Your task to perform on an android device: Show me the top rated dinnerware on Crate & Barrel Image 0: 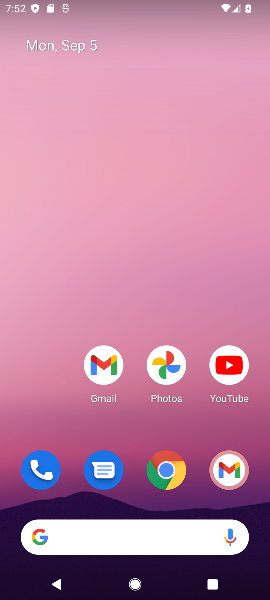
Step 0: click (157, 535)
Your task to perform on an android device: Show me the top rated dinnerware on Crate & Barrel Image 1: 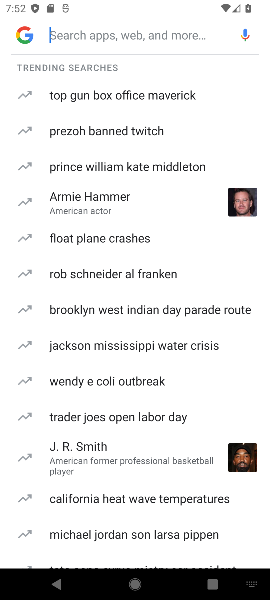
Step 1: type "crate & barrel"
Your task to perform on an android device: Show me the top rated dinnerware on Crate & Barrel Image 2: 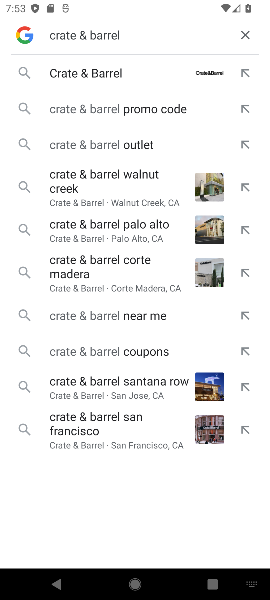
Step 2: click (109, 73)
Your task to perform on an android device: Show me the top rated dinnerware on Crate & Barrel Image 3: 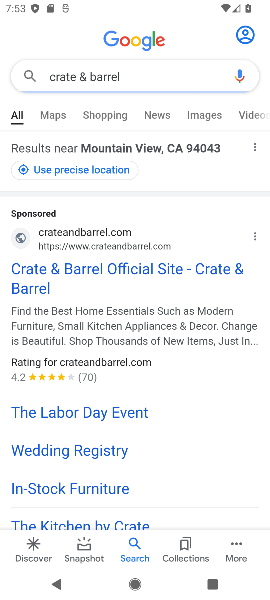
Step 3: click (60, 270)
Your task to perform on an android device: Show me the top rated dinnerware on Crate & Barrel Image 4: 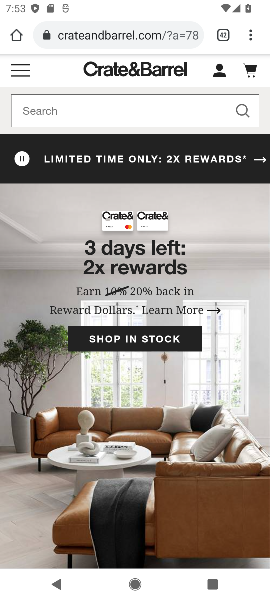
Step 4: click (98, 105)
Your task to perform on an android device: Show me the top rated dinnerware on Crate & Barrel Image 5: 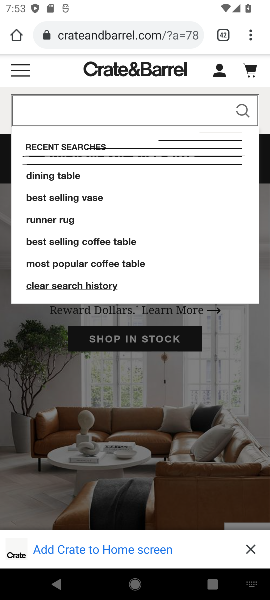
Step 5: type "top rated dinnerware"
Your task to perform on an android device: Show me the top rated dinnerware on Crate & Barrel Image 6: 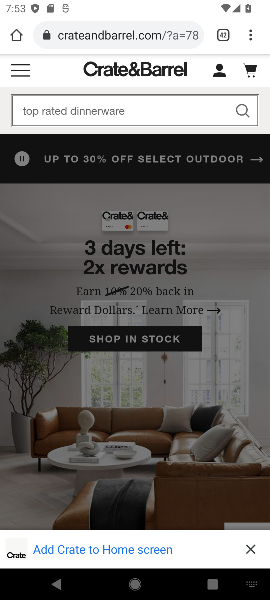
Step 6: click (241, 107)
Your task to perform on an android device: Show me the top rated dinnerware on Crate & Barrel Image 7: 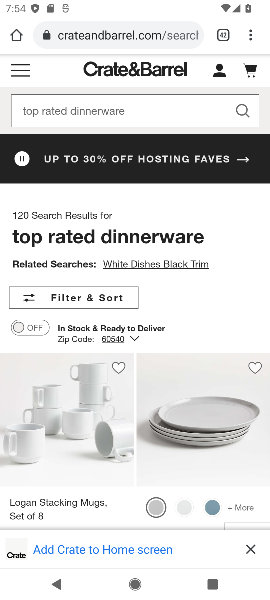
Step 7: click (185, 129)
Your task to perform on an android device: Show me the top rated dinnerware on Crate & Barrel Image 8: 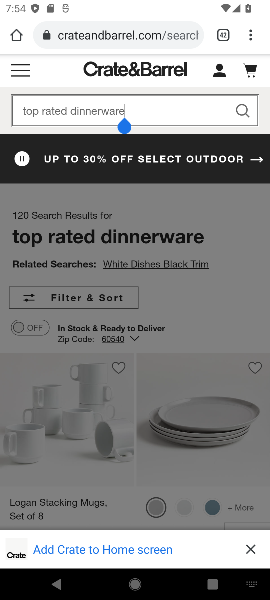
Step 8: task complete